Your task to perform on an android device: Open Google Chrome and click the shortcut for Amazon.com Image 0: 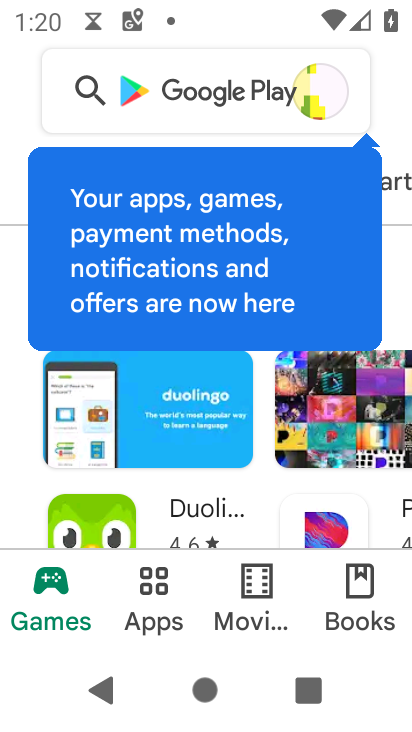
Step 0: press home button
Your task to perform on an android device: Open Google Chrome and click the shortcut for Amazon.com Image 1: 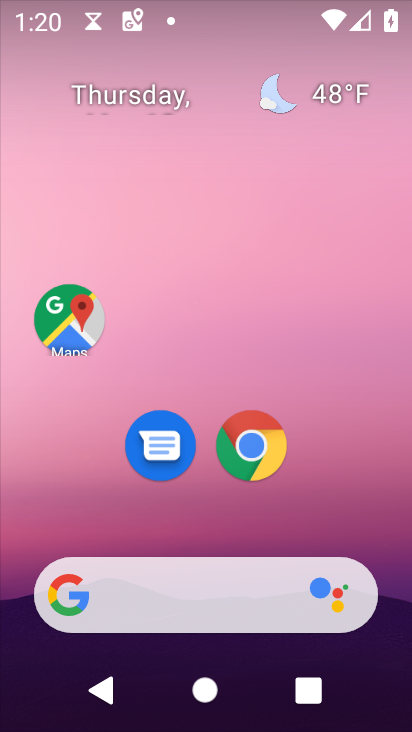
Step 1: click (258, 437)
Your task to perform on an android device: Open Google Chrome and click the shortcut for Amazon.com Image 2: 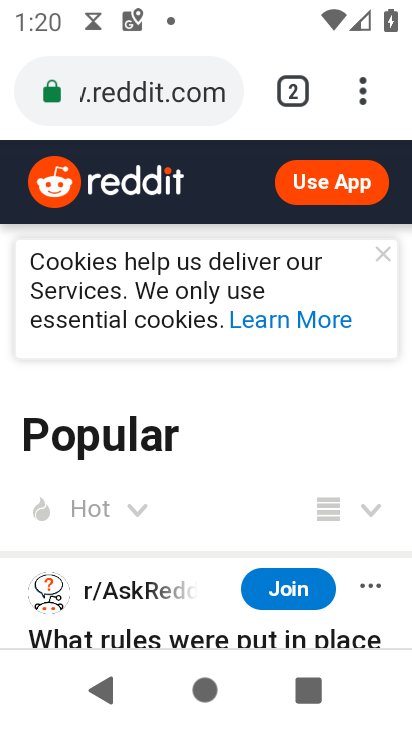
Step 2: click (291, 83)
Your task to perform on an android device: Open Google Chrome and click the shortcut for Amazon.com Image 3: 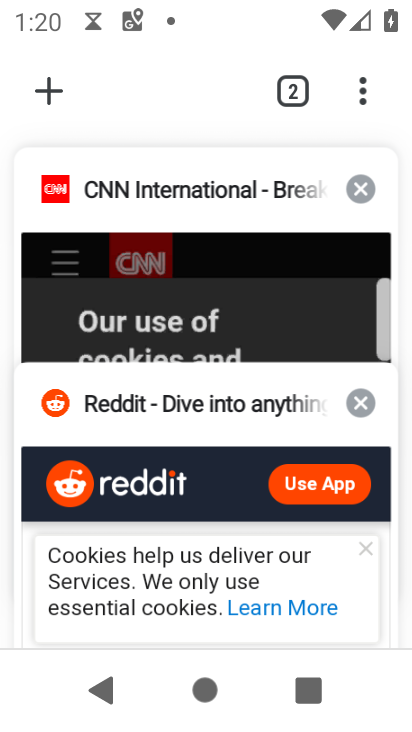
Step 3: click (295, 80)
Your task to perform on an android device: Open Google Chrome and click the shortcut for Amazon.com Image 4: 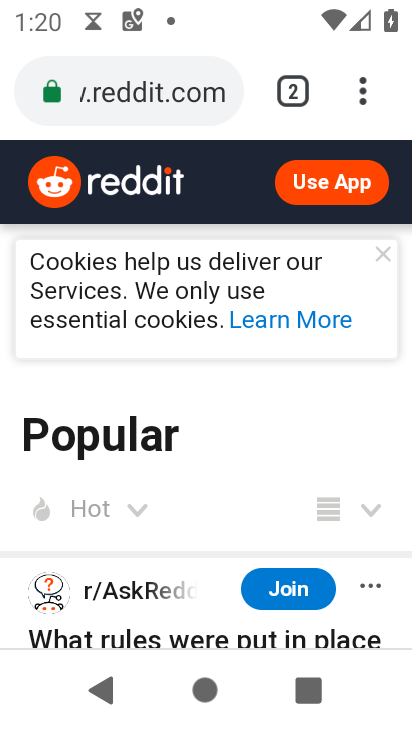
Step 4: click (295, 80)
Your task to perform on an android device: Open Google Chrome and click the shortcut for Amazon.com Image 5: 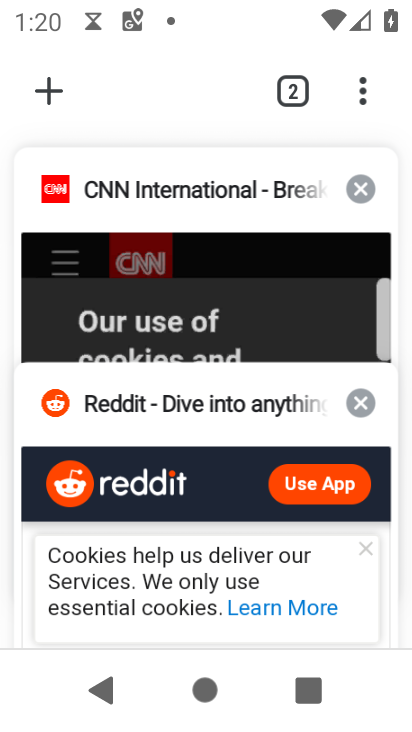
Step 5: click (53, 89)
Your task to perform on an android device: Open Google Chrome and click the shortcut for Amazon.com Image 6: 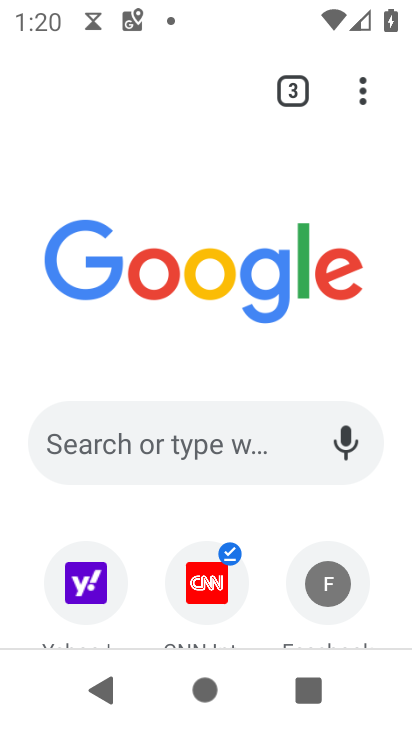
Step 6: drag from (264, 528) to (189, 280)
Your task to perform on an android device: Open Google Chrome and click the shortcut for Amazon.com Image 7: 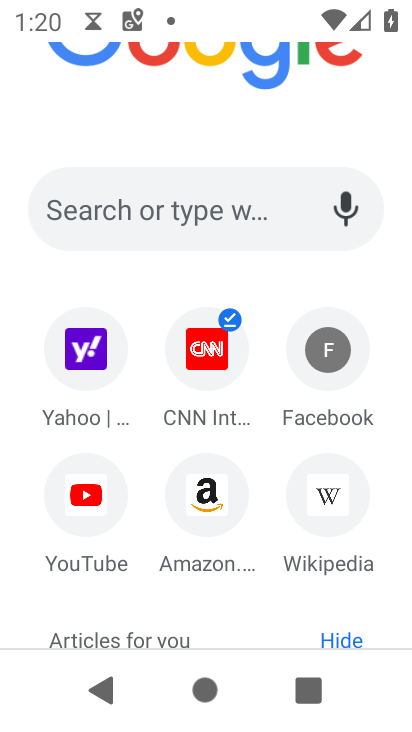
Step 7: click (213, 512)
Your task to perform on an android device: Open Google Chrome and click the shortcut for Amazon.com Image 8: 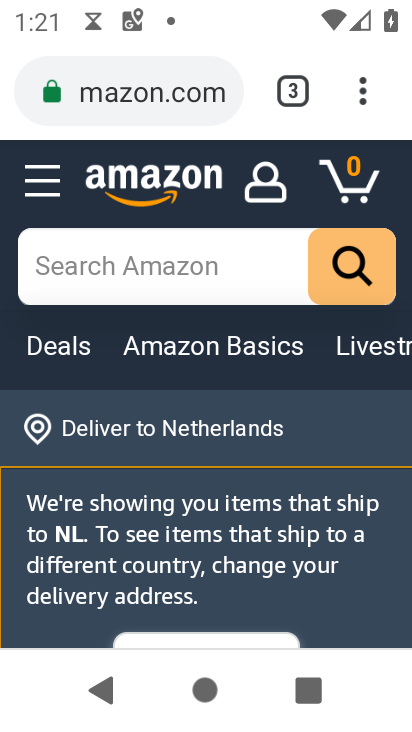
Step 8: task complete